Your task to perform on an android device: turn on location history Image 0: 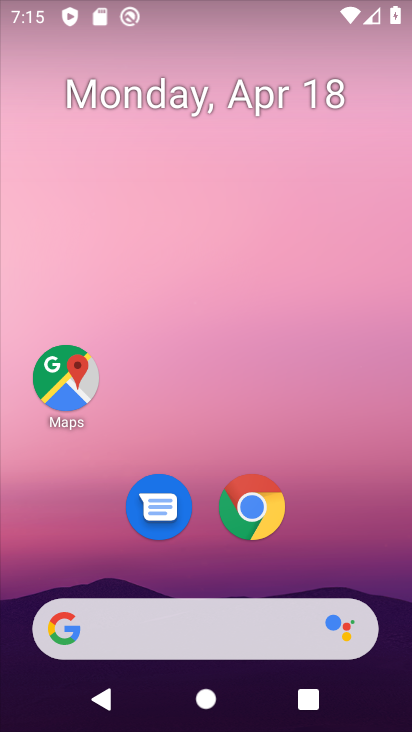
Step 0: click (249, 53)
Your task to perform on an android device: turn on location history Image 1: 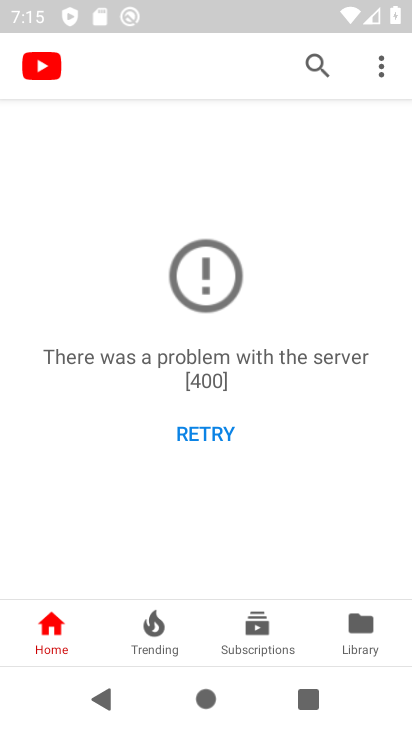
Step 1: press home button
Your task to perform on an android device: turn on location history Image 2: 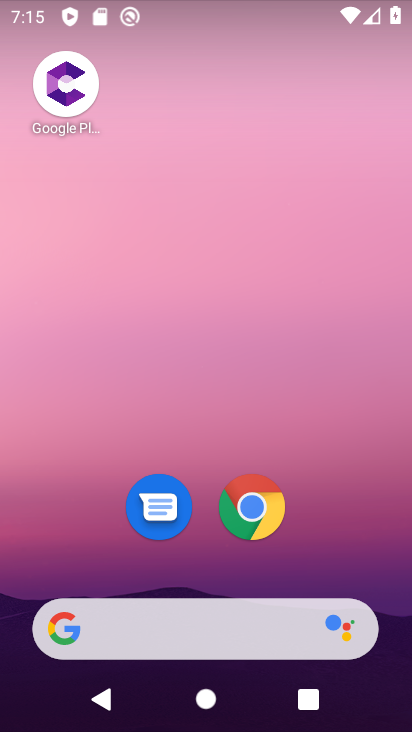
Step 2: drag from (4, 487) to (193, 37)
Your task to perform on an android device: turn on location history Image 3: 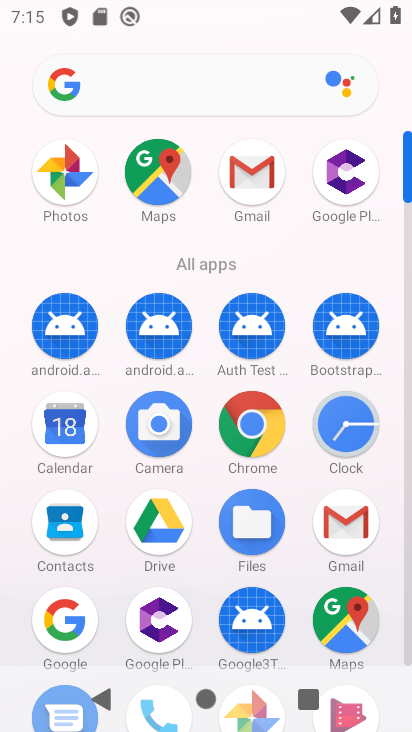
Step 3: click (409, 668)
Your task to perform on an android device: turn on location history Image 4: 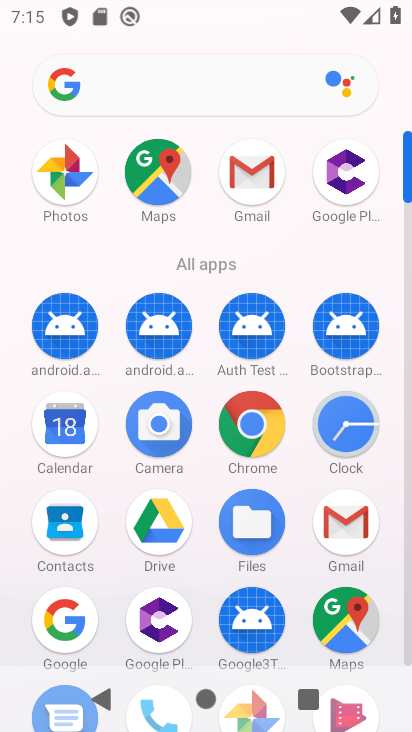
Step 4: click (409, 653)
Your task to perform on an android device: turn on location history Image 5: 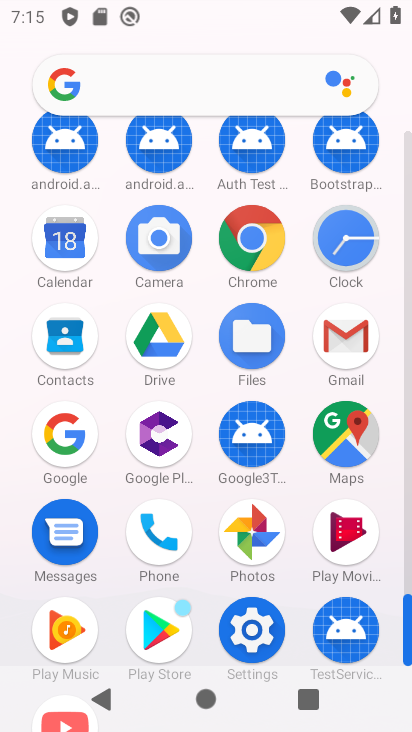
Step 5: click (262, 625)
Your task to perform on an android device: turn on location history Image 6: 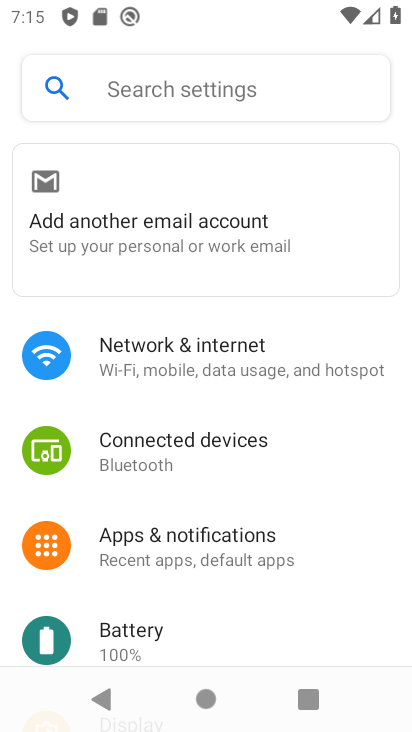
Step 6: drag from (215, 588) to (246, 337)
Your task to perform on an android device: turn on location history Image 7: 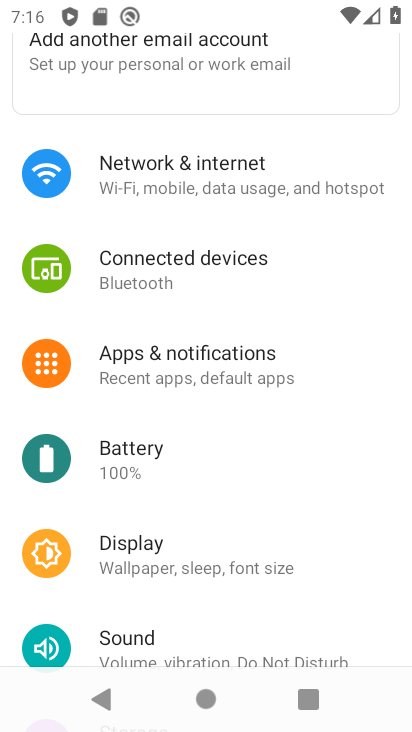
Step 7: drag from (172, 571) to (200, 258)
Your task to perform on an android device: turn on location history Image 8: 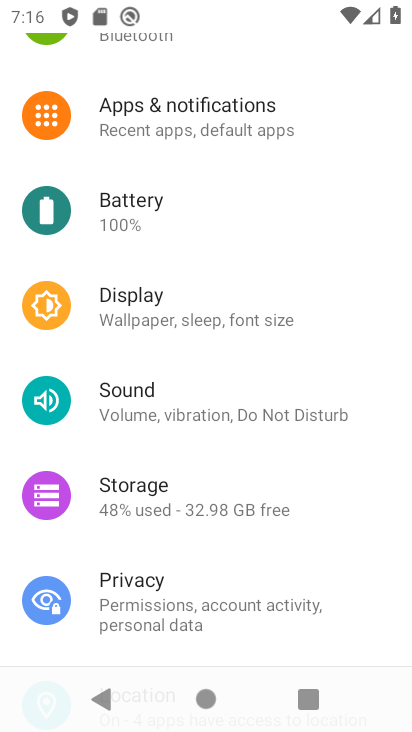
Step 8: drag from (164, 620) to (207, 289)
Your task to perform on an android device: turn on location history Image 9: 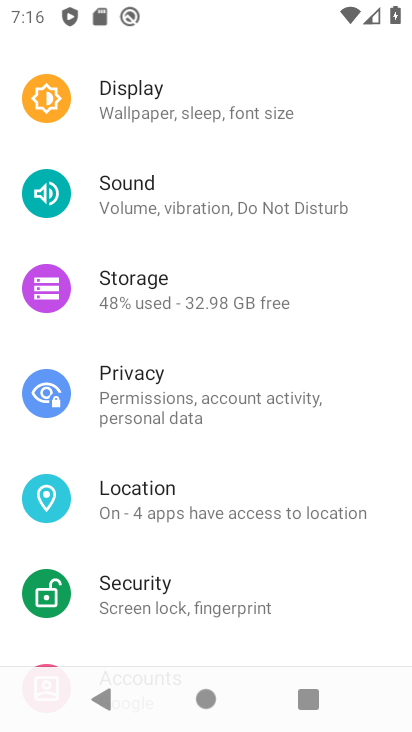
Step 9: click (151, 485)
Your task to perform on an android device: turn on location history Image 10: 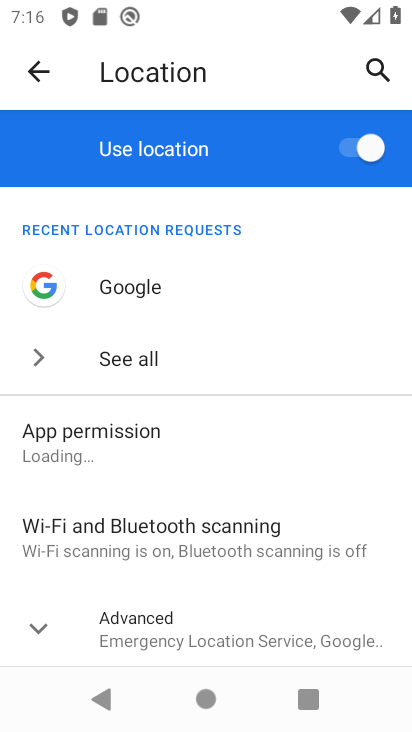
Step 10: drag from (59, 610) to (59, 369)
Your task to perform on an android device: turn on location history Image 11: 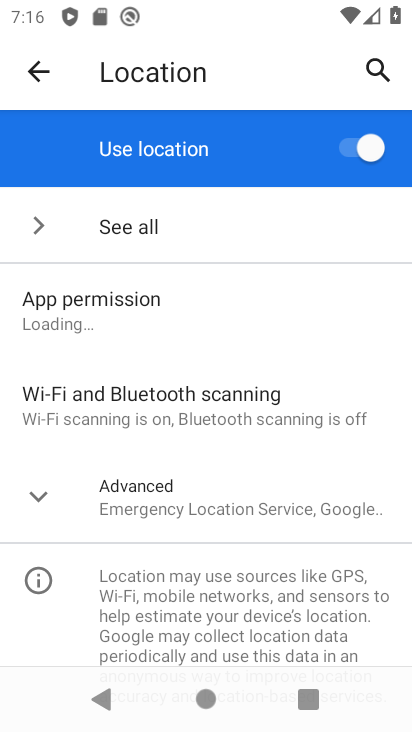
Step 11: click (55, 489)
Your task to perform on an android device: turn on location history Image 12: 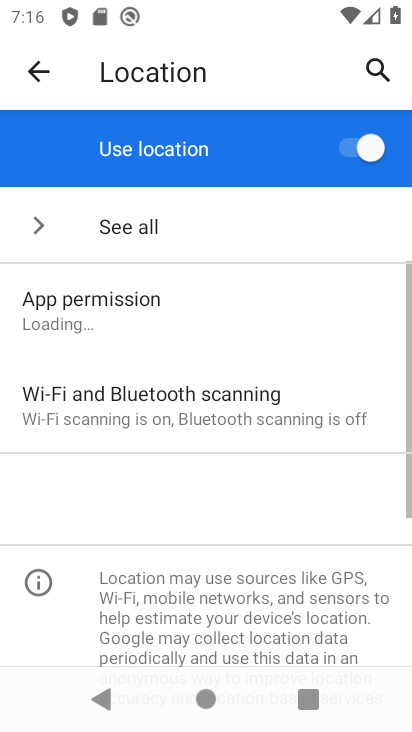
Step 12: drag from (82, 629) to (138, 412)
Your task to perform on an android device: turn on location history Image 13: 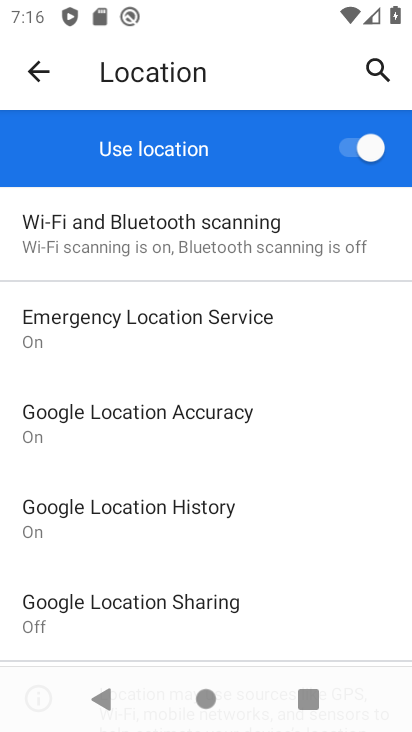
Step 13: click (131, 517)
Your task to perform on an android device: turn on location history Image 14: 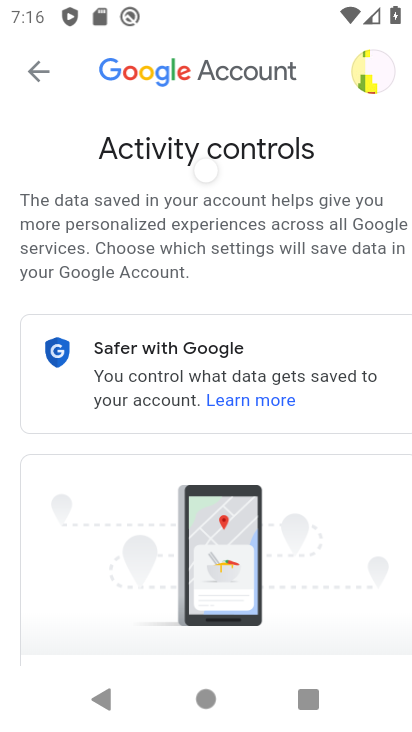
Step 14: drag from (315, 613) to (254, 251)
Your task to perform on an android device: turn on location history Image 15: 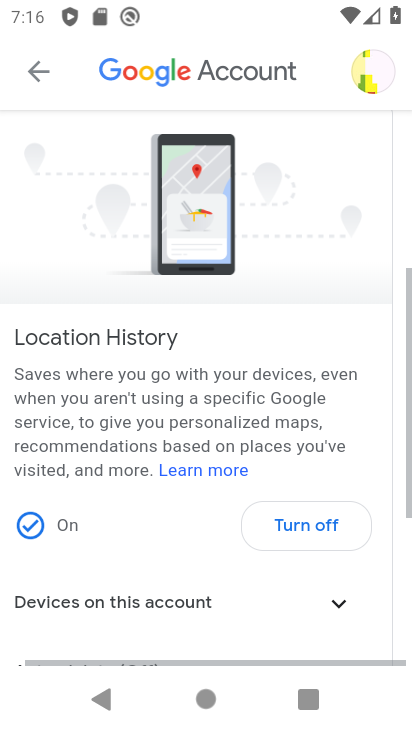
Step 15: drag from (313, 537) to (278, 325)
Your task to perform on an android device: turn on location history Image 16: 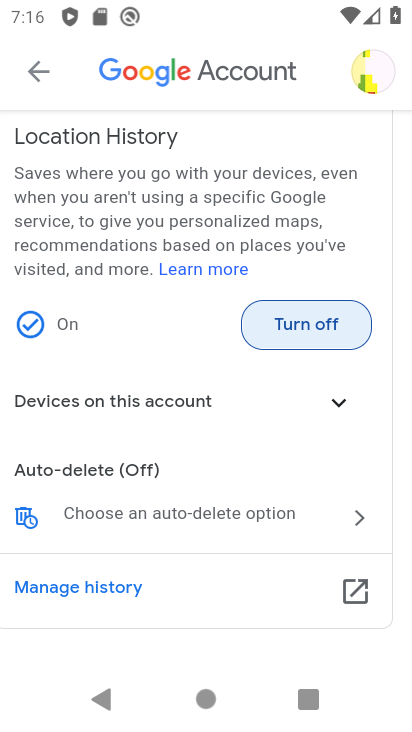
Step 16: click (289, 319)
Your task to perform on an android device: turn on location history Image 17: 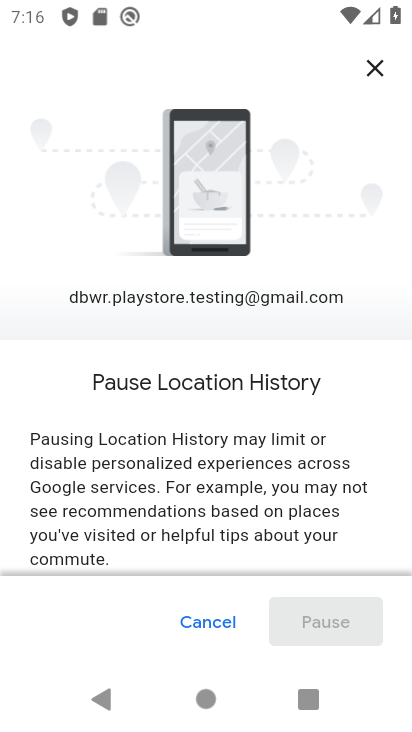
Step 17: task complete